Your task to perform on an android device: Search for Mexican restaurants on Maps Image 0: 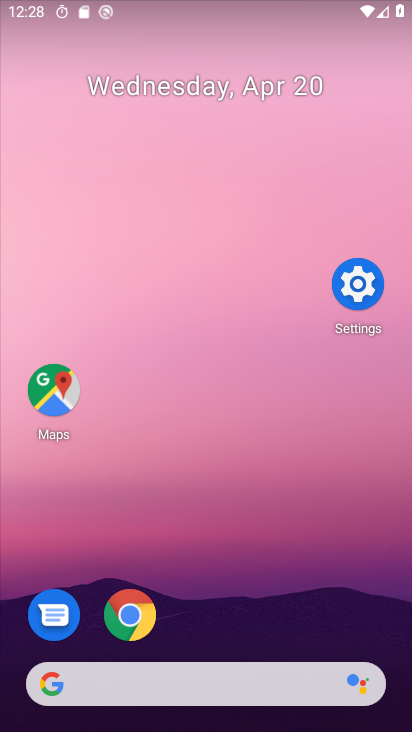
Step 0: drag from (191, 643) to (250, 356)
Your task to perform on an android device: Search for Mexican restaurants on Maps Image 1: 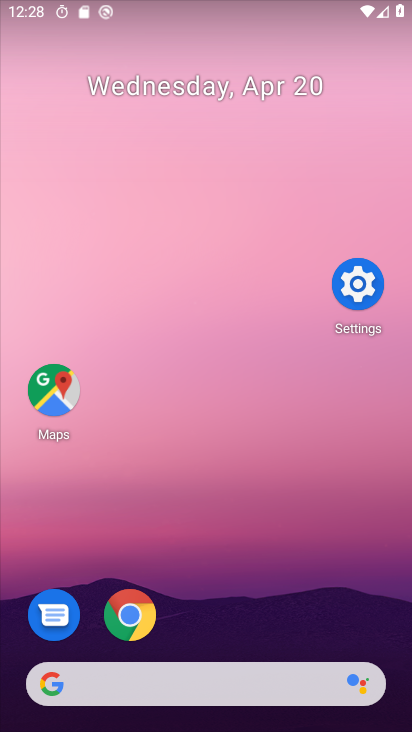
Step 1: click (57, 397)
Your task to perform on an android device: Search for Mexican restaurants on Maps Image 2: 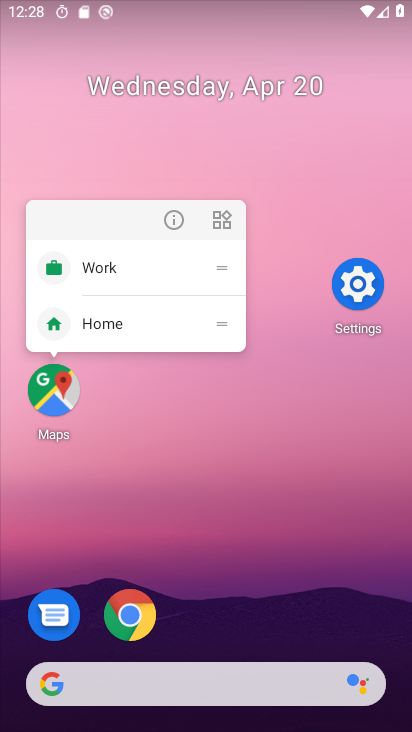
Step 2: click (180, 223)
Your task to perform on an android device: Search for Mexican restaurants on Maps Image 3: 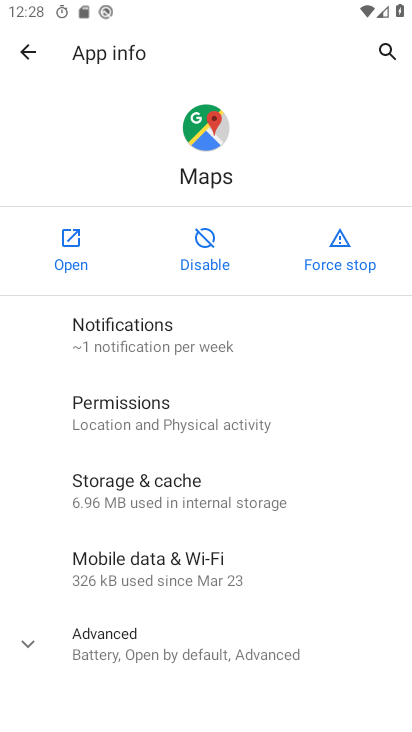
Step 3: click (63, 253)
Your task to perform on an android device: Search for Mexican restaurants on Maps Image 4: 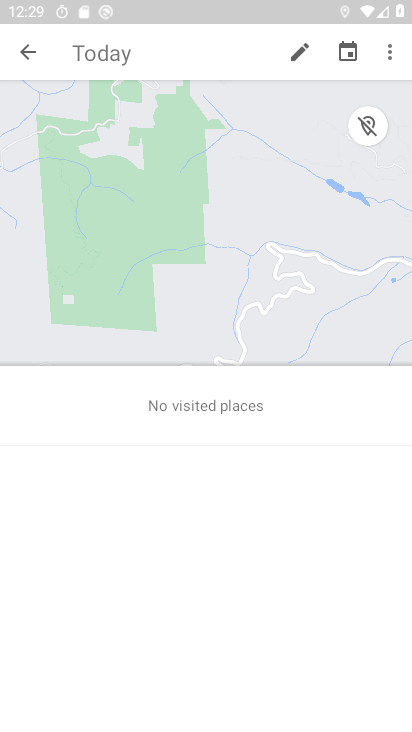
Step 4: click (33, 51)
Your task to perform on an android device: Search for Mexican restaurants on Maps Image 5: 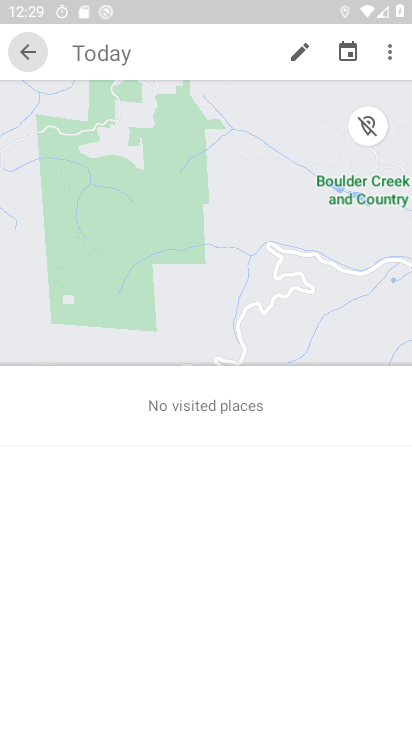
Step 5: press back button
Your task to perform on an android device: Search for Mexican restaurants on Maps Image 6: 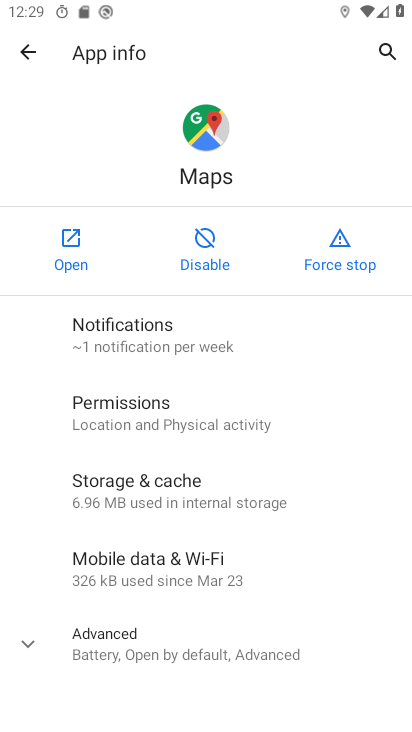
Step 6: click (125, 62)
Your task to perform on an android device: Search for Mexican restaurants on Maps Image 7: 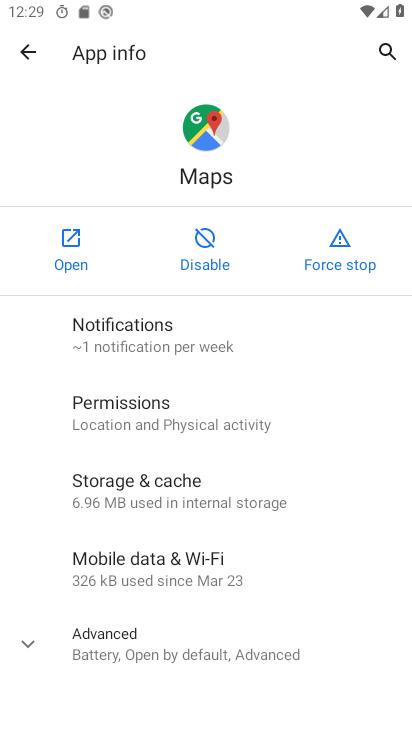
Step 7: click (57, 247)
Your task to perform on an android device: Search for Mexican restaurants on Maps Image 8: 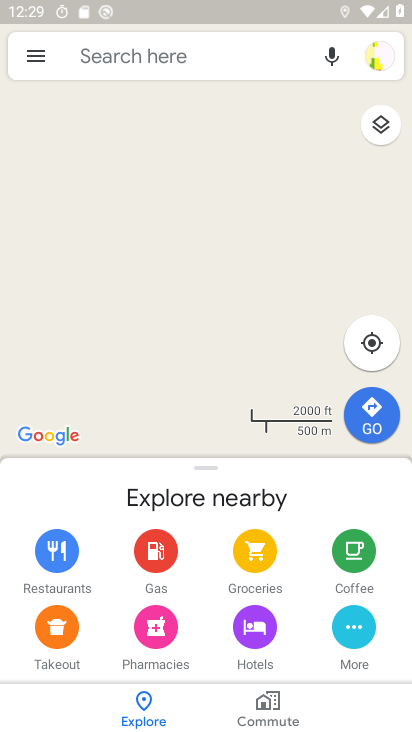
Step 8: click (170, 54)
Your task to perform on an android device: Search for Mexican restaurants on Maps Image 9: 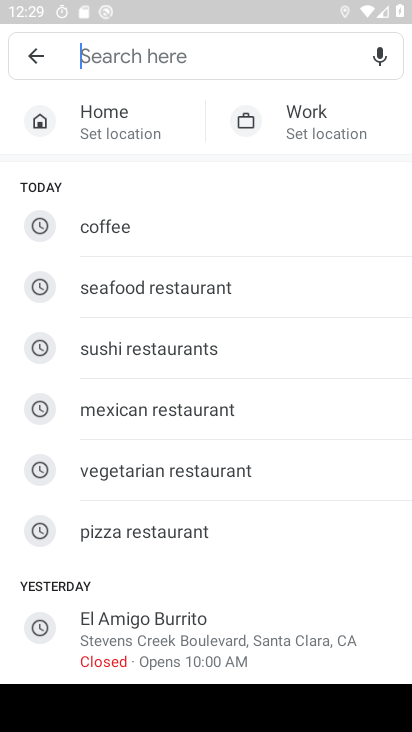
Step 9: click (77, 405)
Your task to perform on an android device: Search for Mexican restaurants on Maps Image 10: 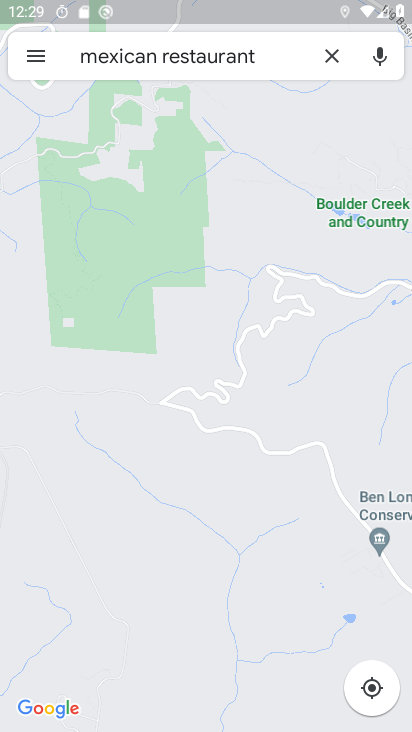
Step 10: task complete